Your task to perform on an android device: Open location settings Image 0: 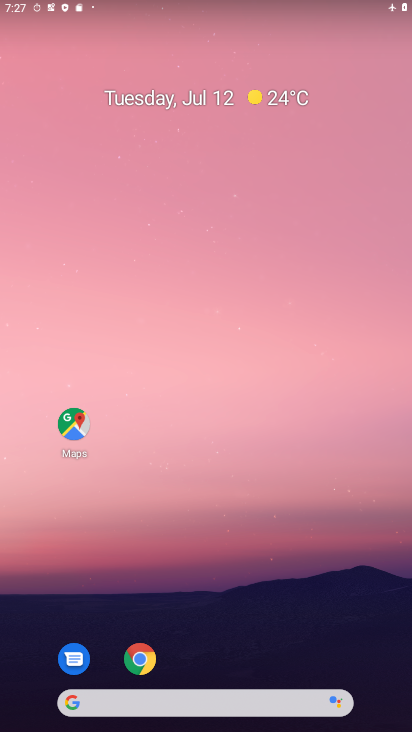
Step 0: drag from (365, 661) to (196, 7)
Your task to perform on an android device: Open location settings Image 1: 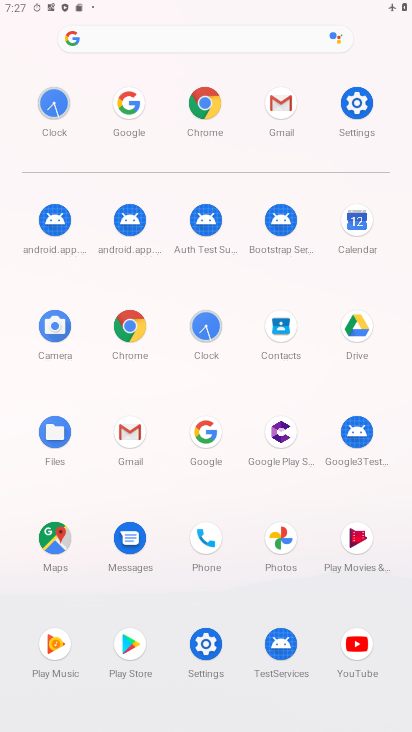
Step 1: click (357, 107)
Your task to perform on an android device: Open location settings Image 2: 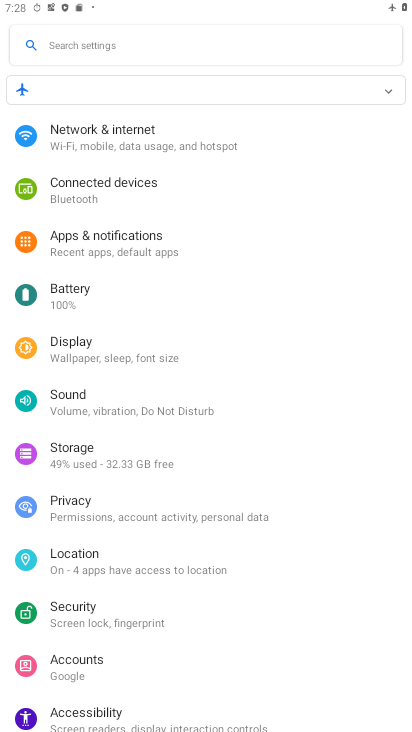
Step 2: click (101, 561)
Your task to perform on an android device: Open location settings Image 3: 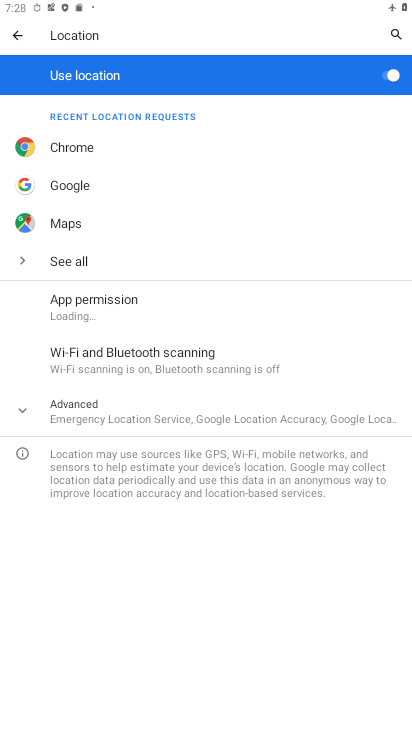
Step 3: task complete